Your task to perform on an android device: What is the news today? Image 0: 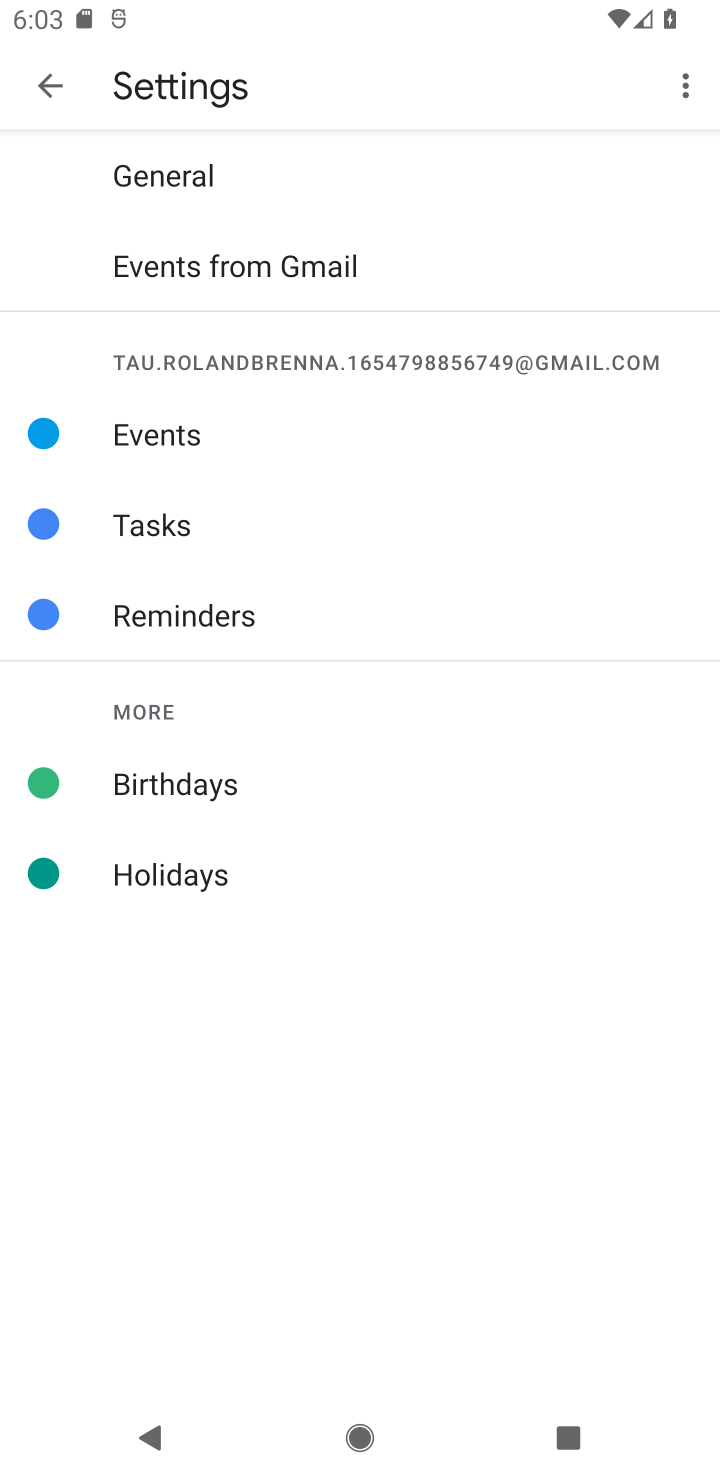
Step 0: press home button
Your task to perform on an android device: What is the news today? Image 1: 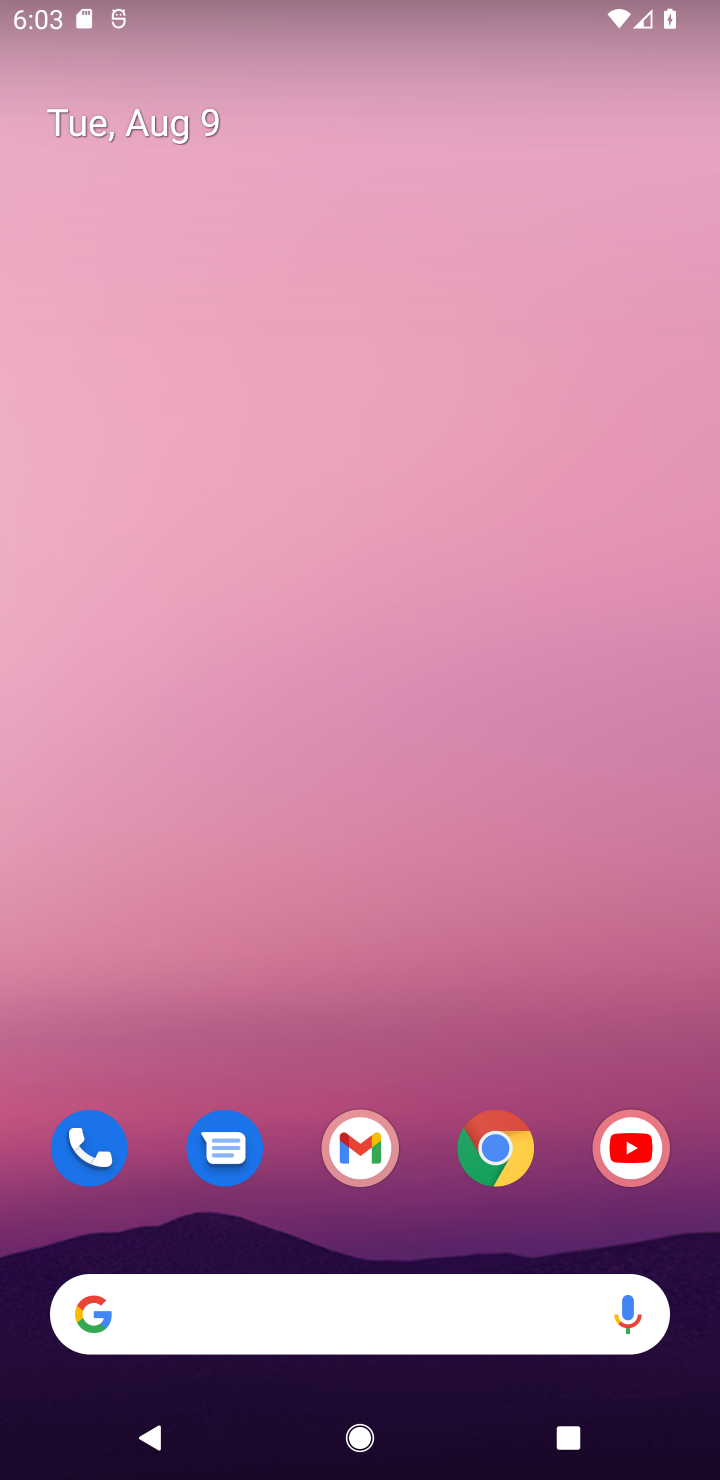
Step 1: click (370, 1311)
Your task to perform on an android device: What is the news today? Image 2: 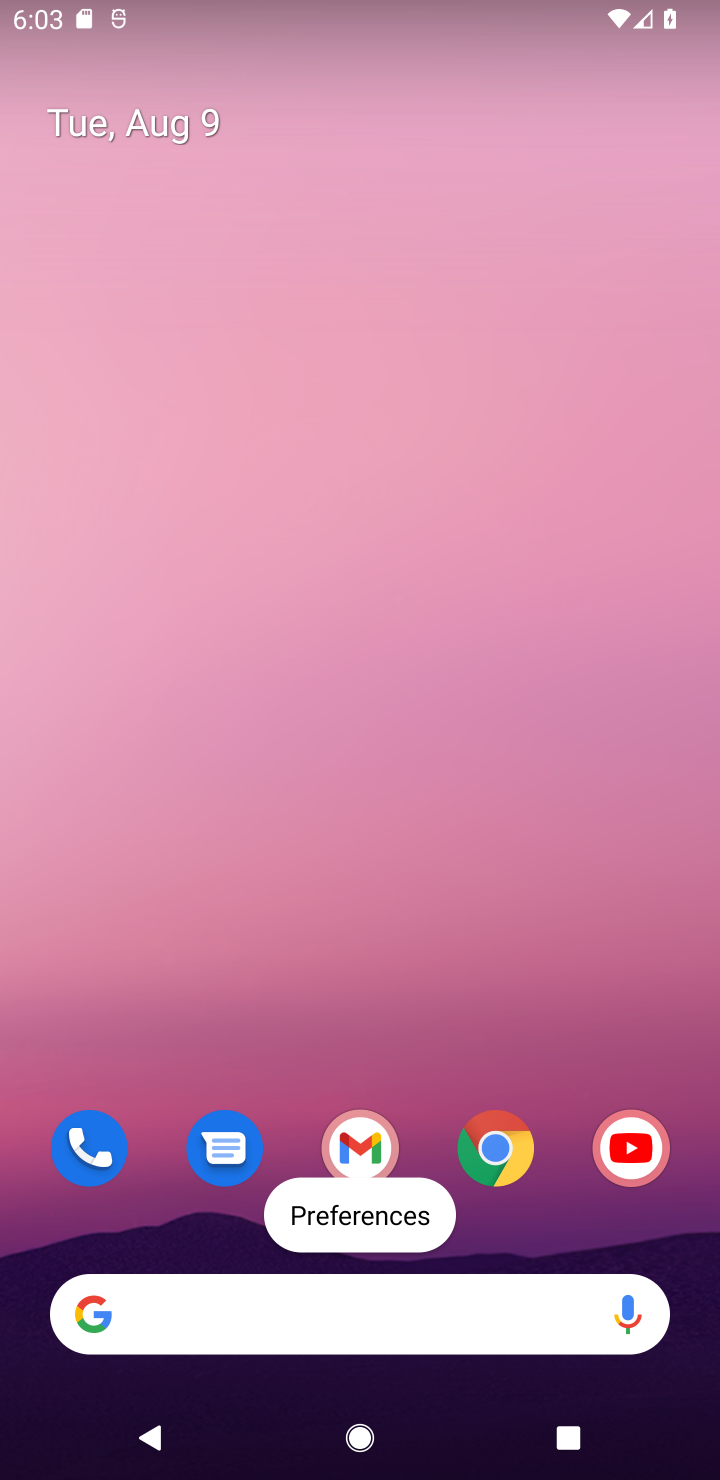
Step 2: drag from (235, 1170) to (220, 0)
Your task to perform on an android device: What is the news today? Image 3: 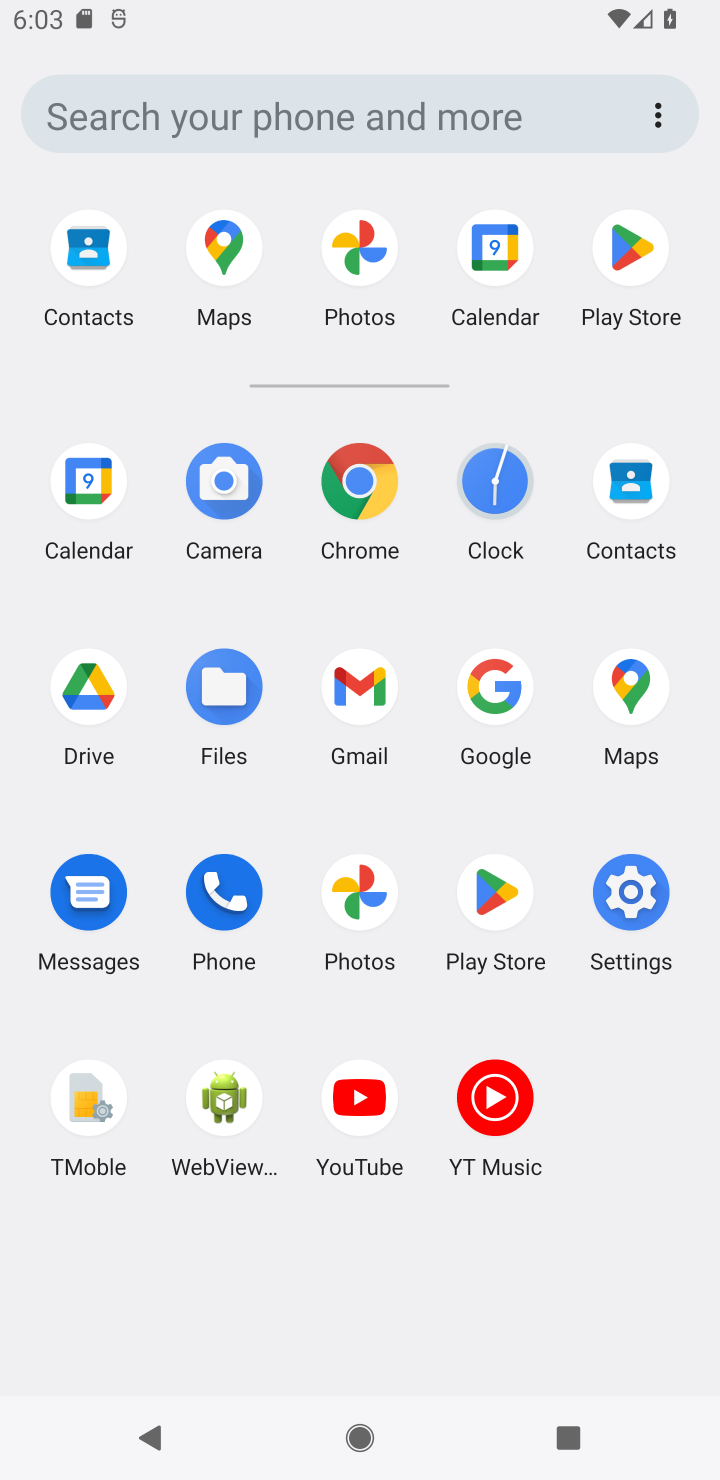
Step 3: click (483, 702)
Your task to perform on an android device: What is the news today? Image 4: 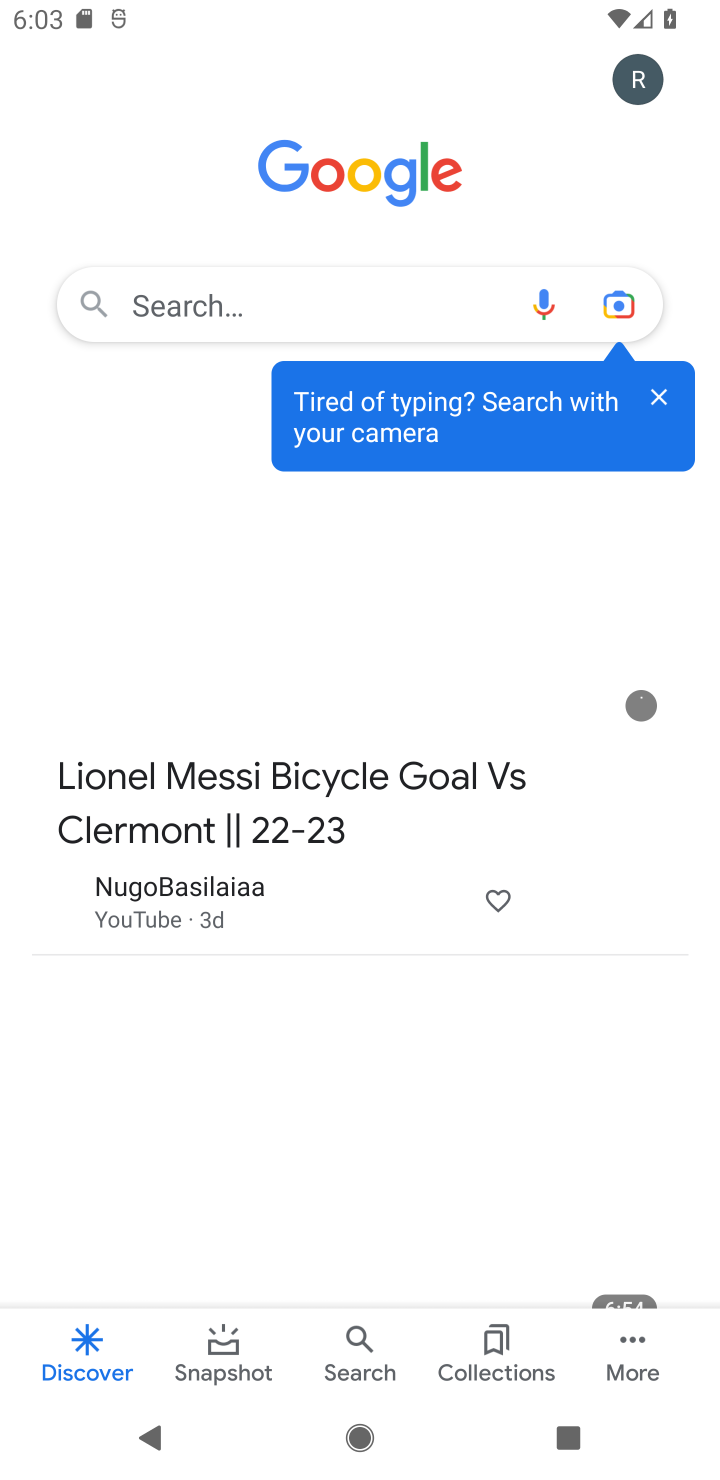
Step 4: click (322, 311)
Your task to perform on an android device: What is the news today? Image 5: 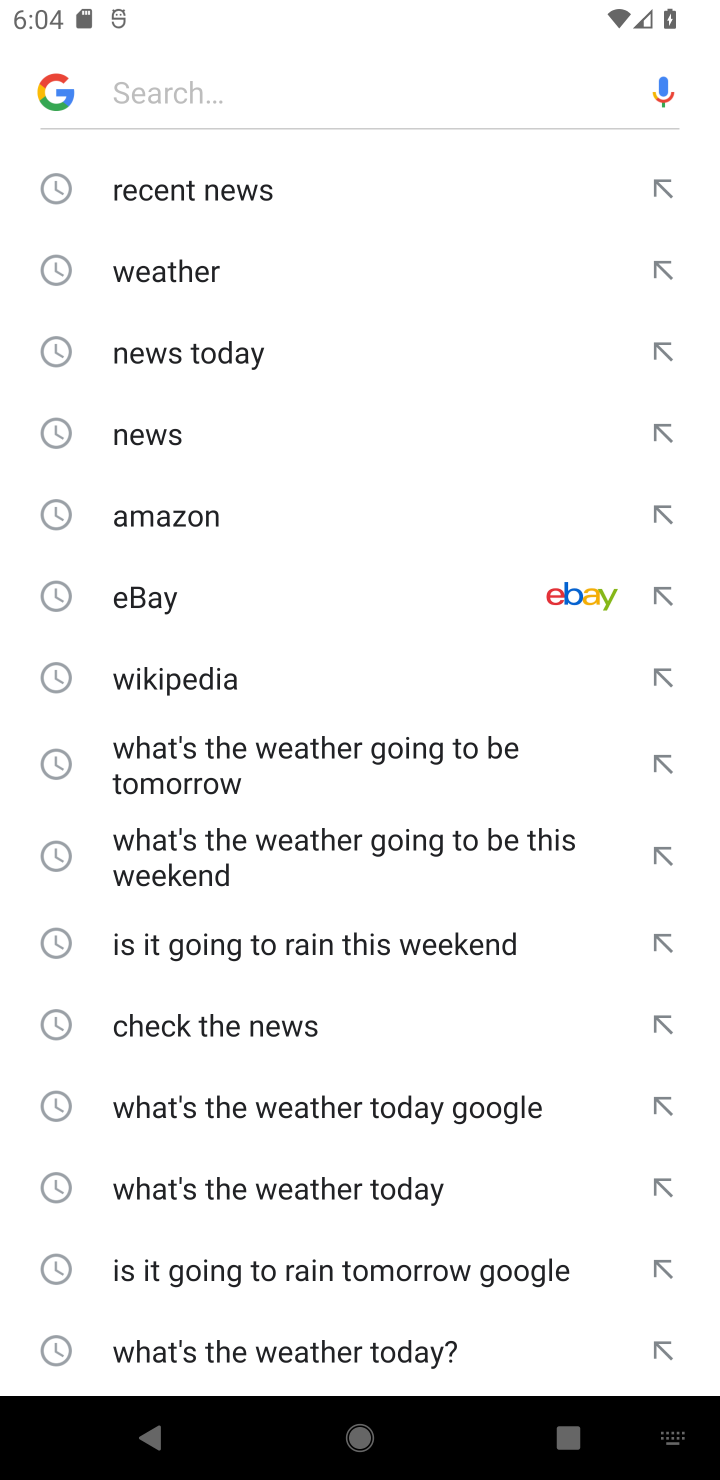
Step 5: type "news today ?"
Your task to perform on an android device: What is the news today? Image 6: 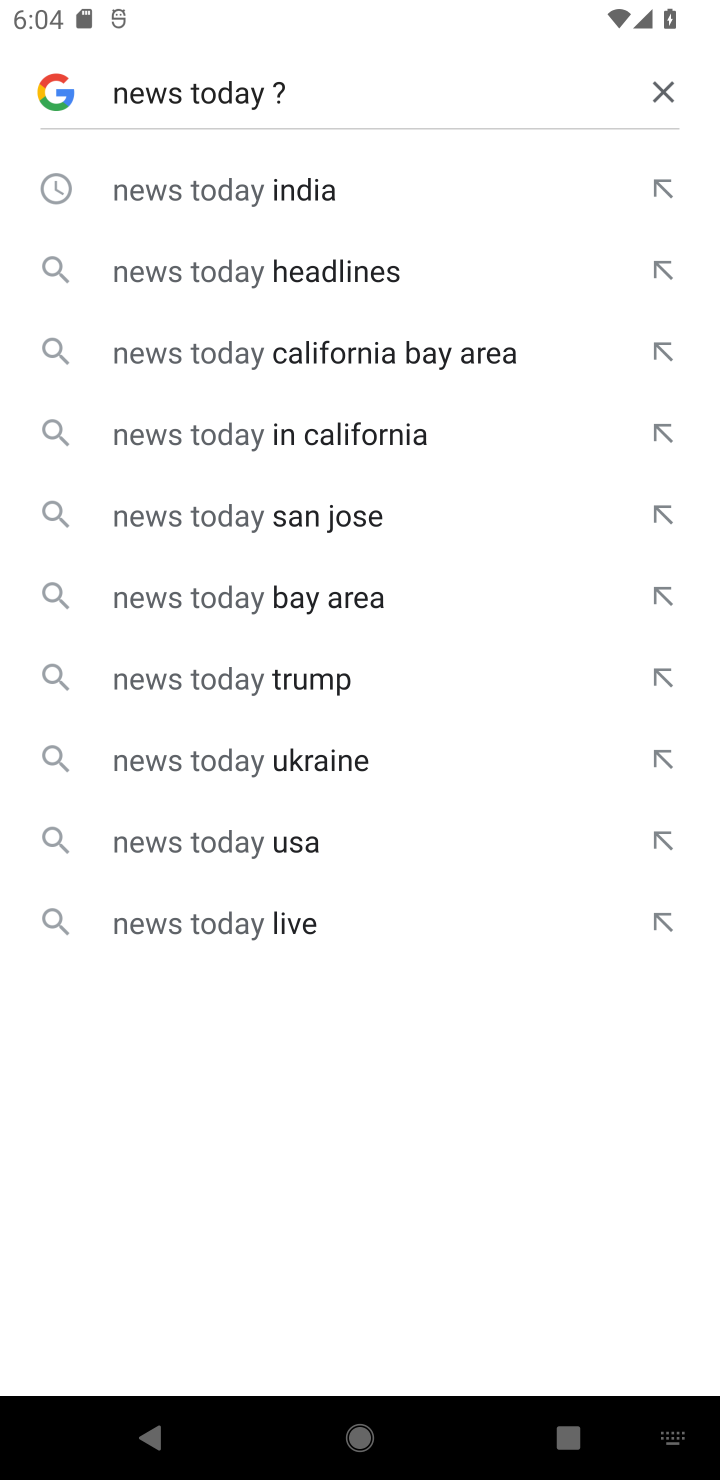
Step 6: click (152, 277)
Your task to perform on an android device: What is the news today? Image 7: 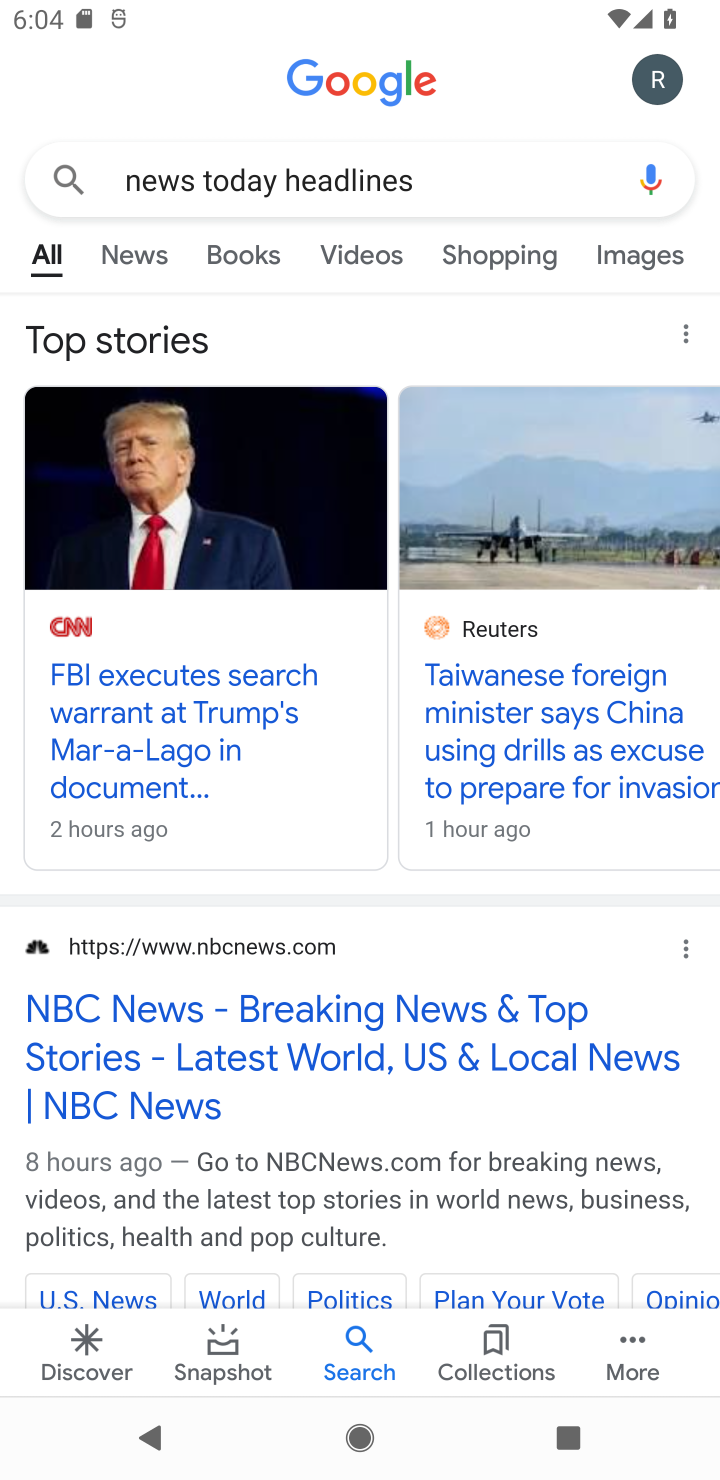
Step 7: task complete